Your task to perform on an android device: Go to Google maps Image 0: 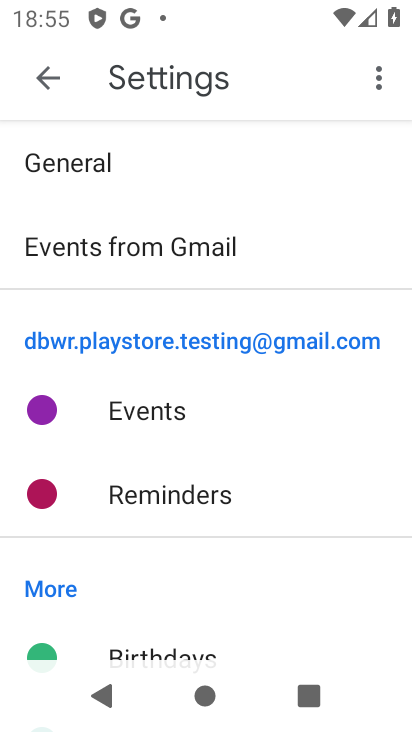
Step 0: press home button
Your task to perform on an android device: Go to Google maps Image 1: 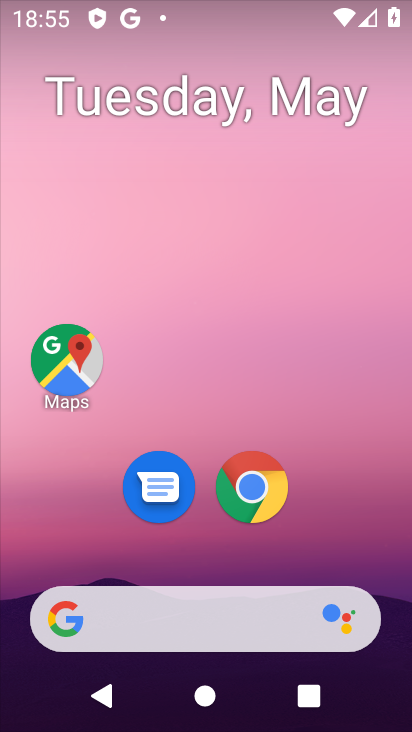
Step 1: click (63, 363)
Your task to perform on an android device: Go to Google maps Image 2: 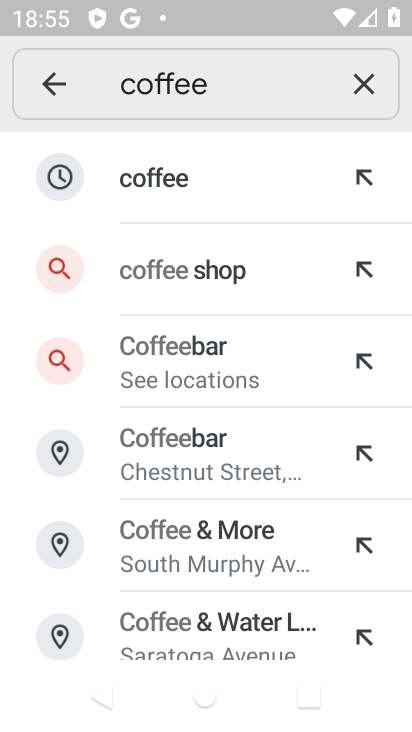
Step 2: click (59, 83)
Your task to perform on an android device: Go to Google maps Image 3: 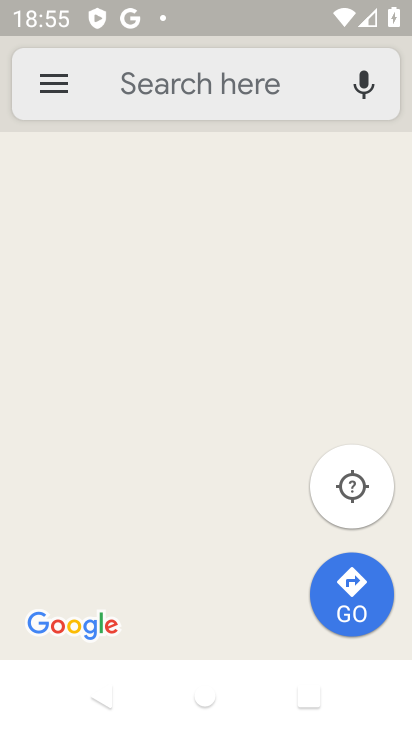
Step 3: task complete